Your task to perform on an android device: Go to notification settings Image 0: 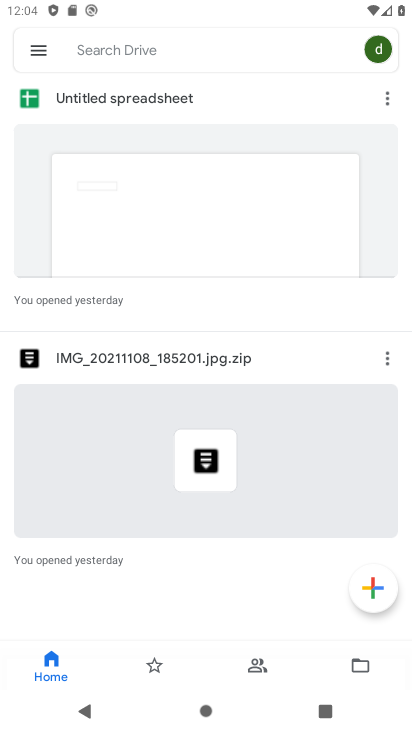
Step 0: press home button
Your task to perform on an android device: Go to notification settings Image 1: 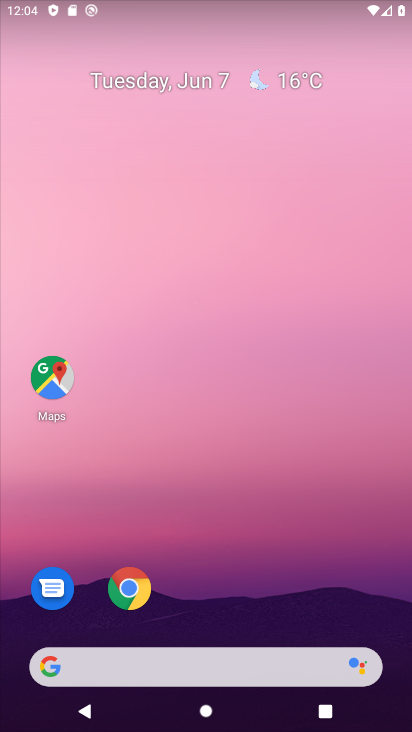
Step 1: drag from (306, 585) to (205, 184)
Your task to perform on an android device: Go to notification settings Image 2: 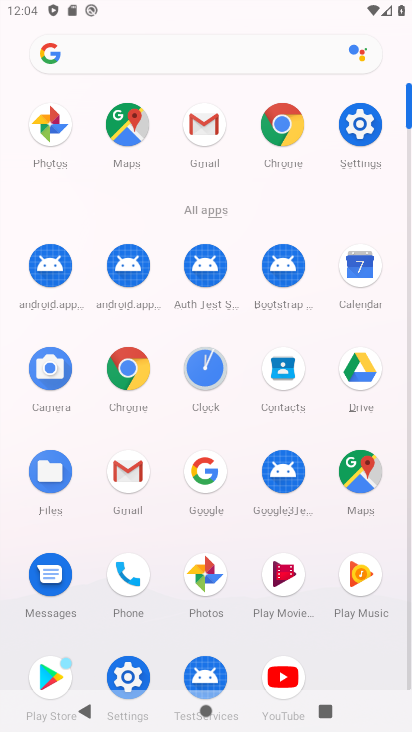
Step 2: click (358, 116)
Your task to perform on an android device: Go to notification settings Image 3: 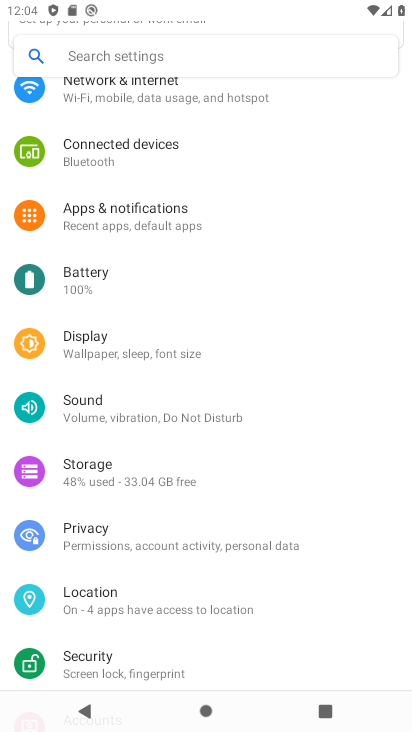
Step 3: click (228, 218)
Your task to perform on an android device: Go to notification settings Image 4: 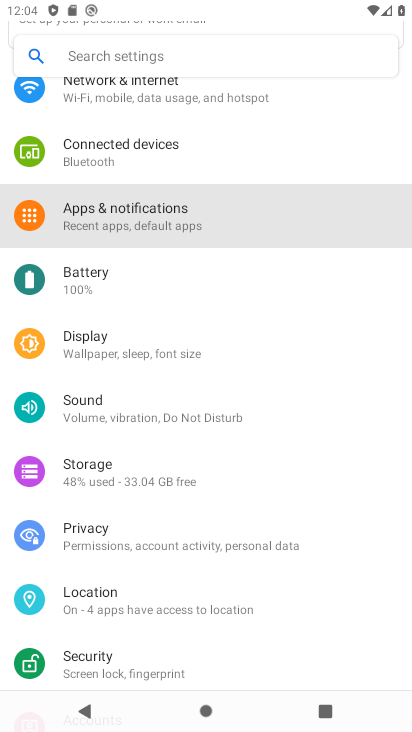
Step 4: task complete